Your task to perform on an android device: turn off notifications settings in the gmail app Image 0: 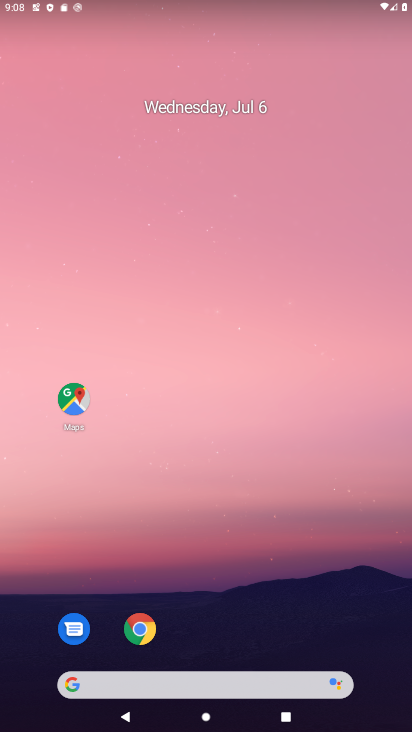
Step 0: drag from (230, 649) to (217, 100)
Your task to perform on an android device: turn off notifications settings in the gmail app Image 1: 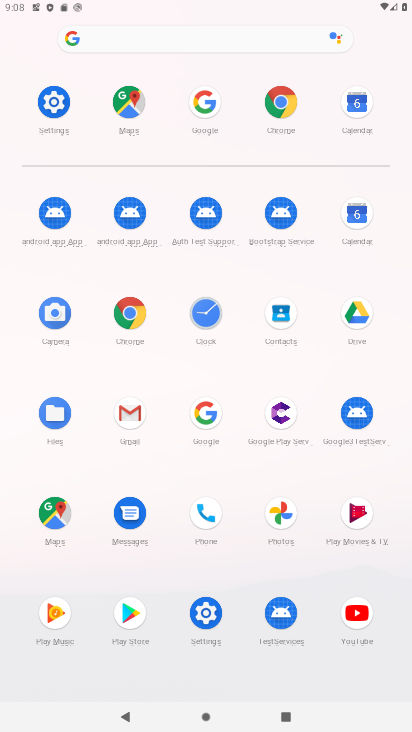
Step 1: click (128, 408)
Your task to perform on an android device: turn off notifications settings in the gmail app Image 2: 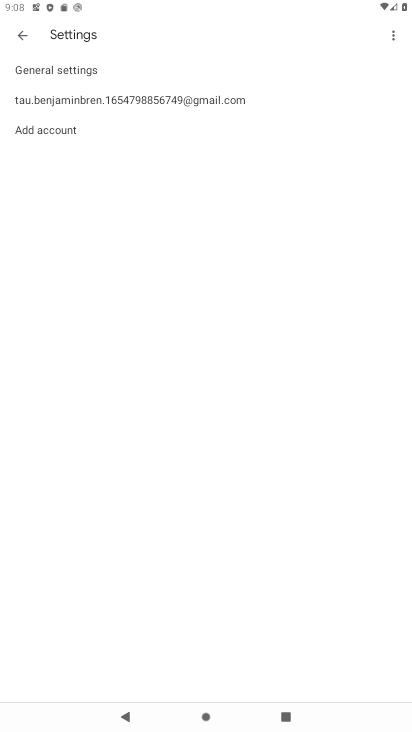
Step 2: click (81, 96)
Your task to perform on an android device: turn off notifications settings in the gmail app Image 3: 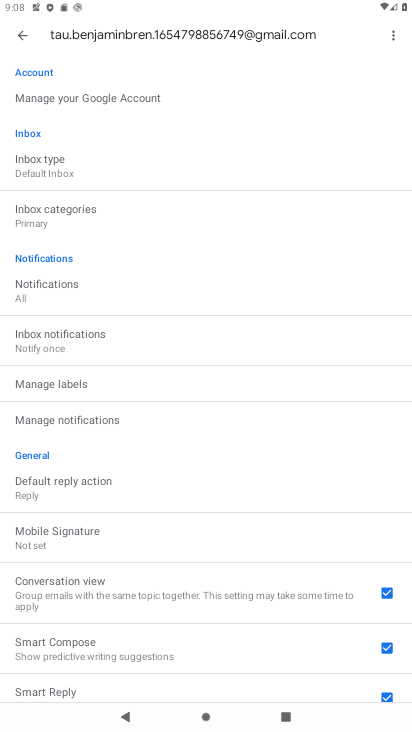
Step 3: click (44, 300)
Your task to perform on an android device: turn off notifications settings in the gmail app Image 4: 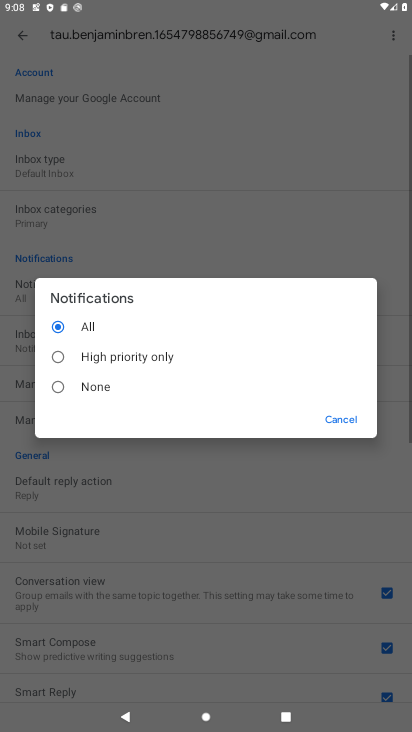
Step 4: click (101, 395)
Your task to perform on an android device: turn off notifications settings in the gmail app Image 5: 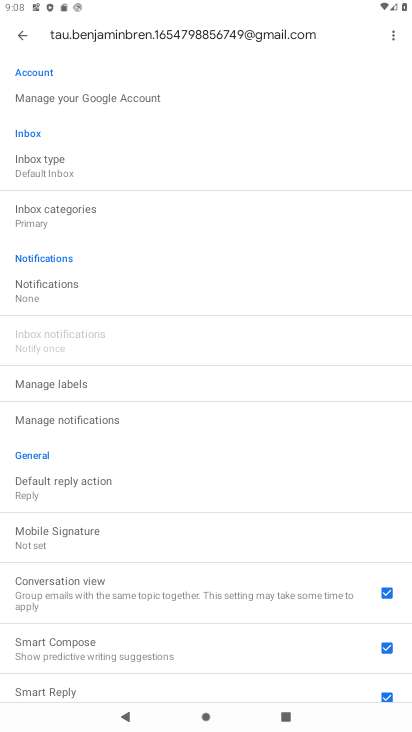
Step 5: task complete